Your task to perform on an android device: turn off wifi Image 0: 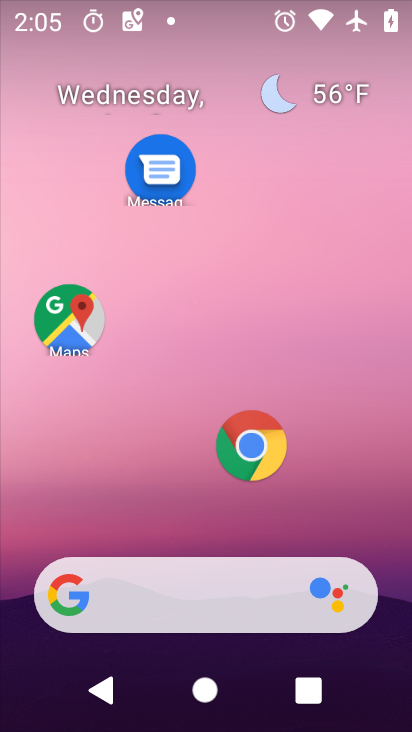
Step 0: drag from (206, 527) to (222, 166)
Your task to perform on an android device: turn off wifi Image 1: 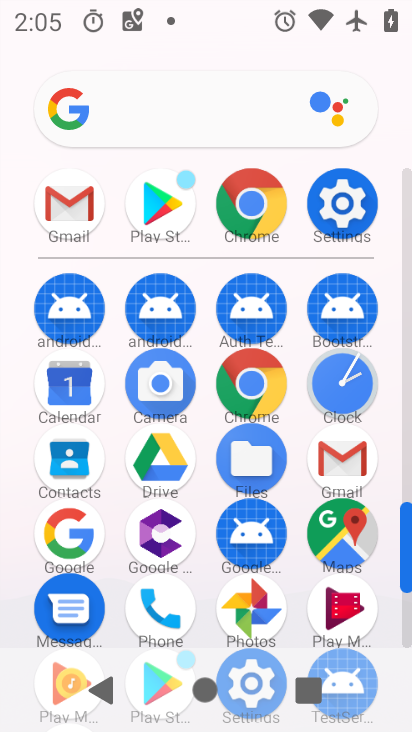
Step 1: drag from (201, 268) to (191, 116)
Your task to perform on an android device: turn off wifi Image 2: 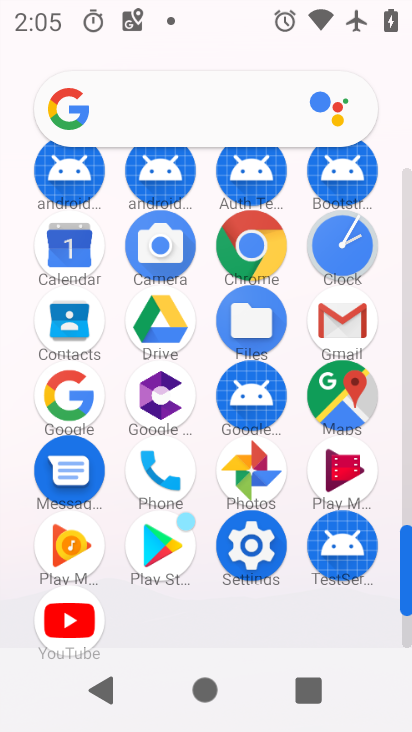
Step 2: click (243, 563)
Your task to perform on an android device: turn off wifi Image 3: 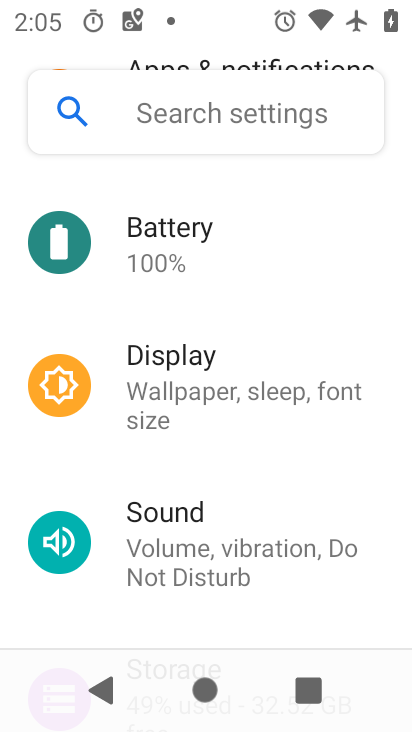
Step 3: drag from (218, 224) to (264, 658)
Your task to perform on an android device: turn off wifi Image 4: 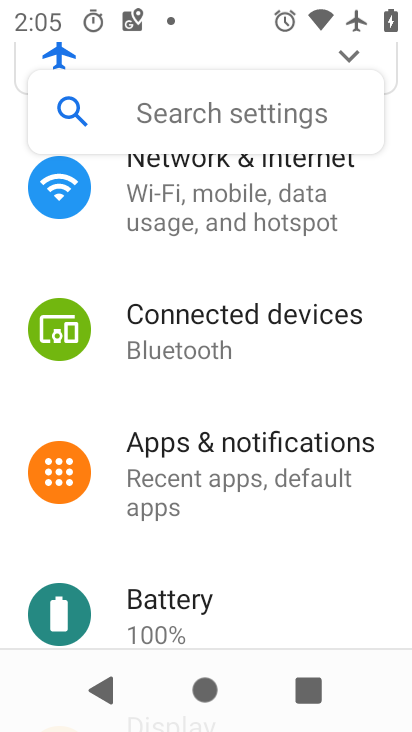
Step 4: drag from (274, 276) to (295, 551)
Your task to perform on an android device: turn off wifi Image 5: 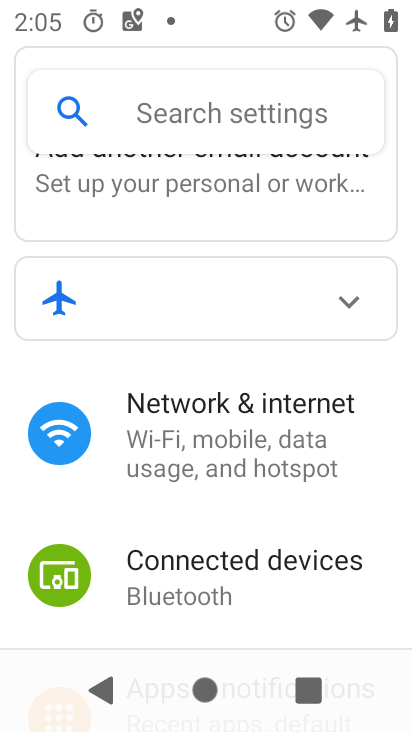
Step 5: click (158, 449)
Your task to perform on an android device: turn off wifi Image 6: 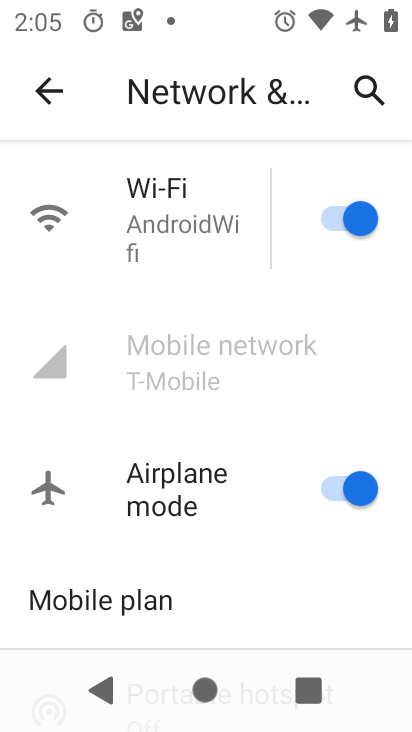
Step 6: click (332, 222)
Your task to perform on an android device: turn off wifi Image 7: 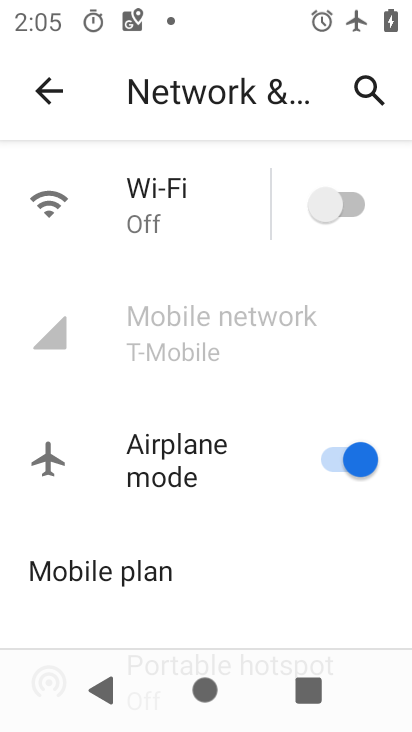
Step 7: task complete